Your task to perform on an android device: open app "HBO Max: Stream TV & Movies" (install if not already installed) Image 0: 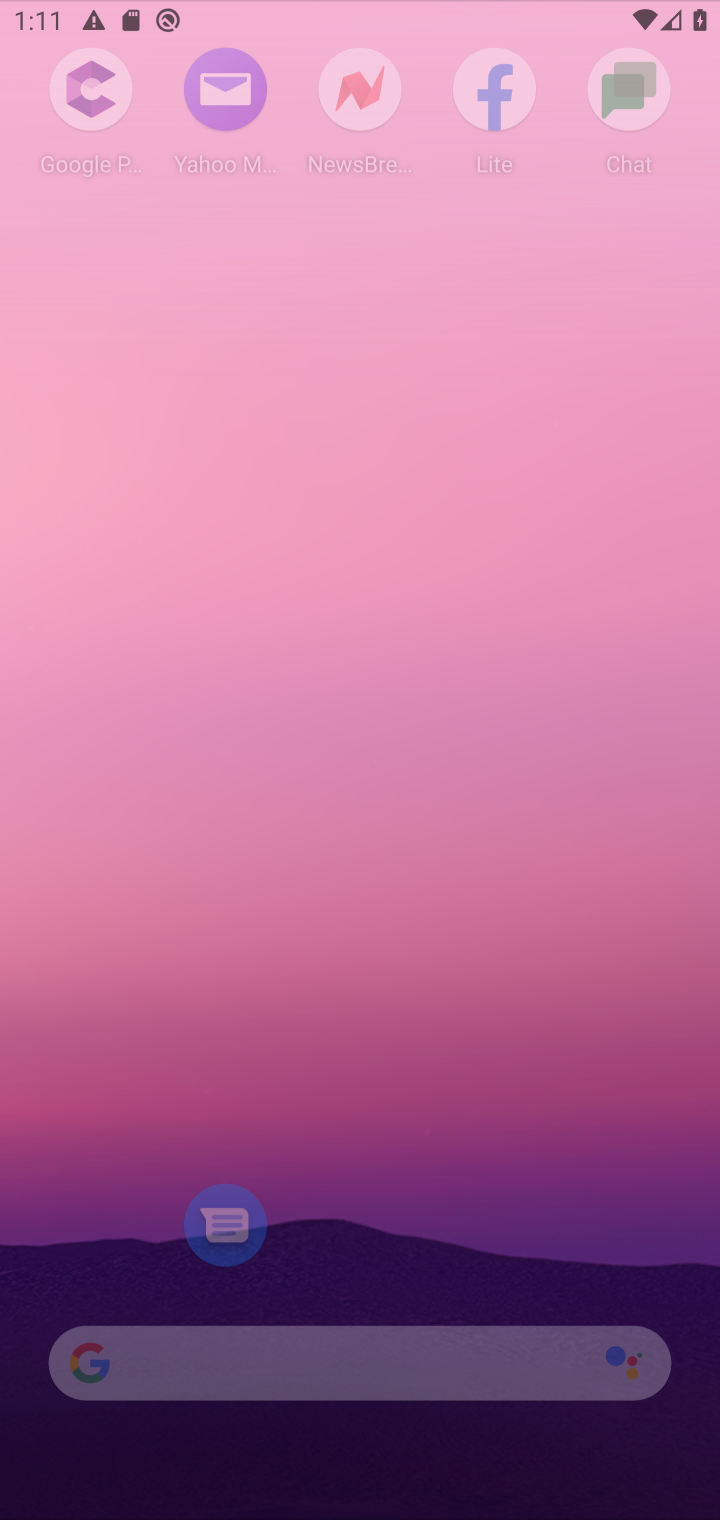
Step 0: press home button
Your task to perform on an android device: open app "HBO Max: Stream TV & Movies" (install if not already installed) Image 1: 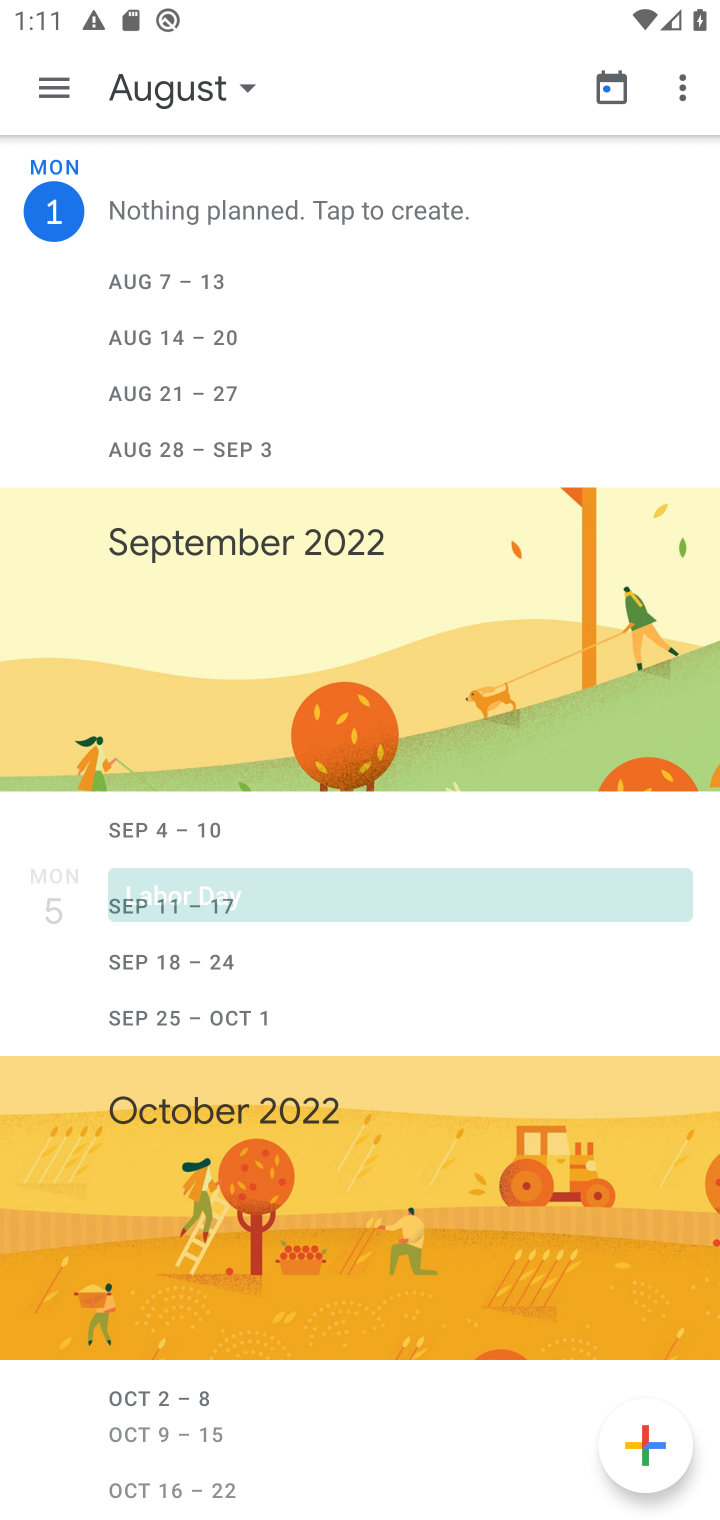
Step 1: press back button
Your task to perform on an android device: open app "HBO Max: Stream TV & Movies" (install if not already installed) Image 2: 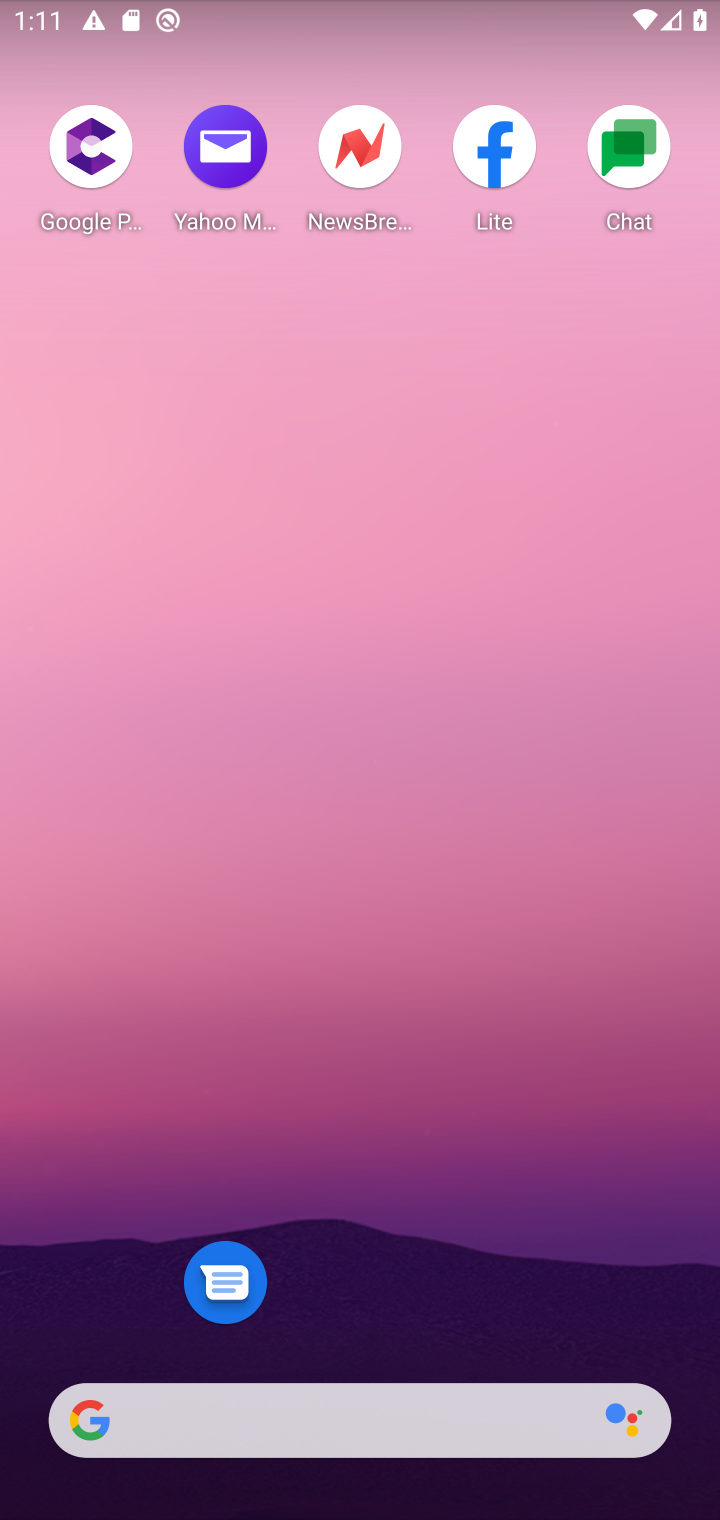
Step 2: drag from (403, 1300) to (708, 989)
Your task to perform on an android device: open app "HBO Max: Stream TV & Movies" (install if not already installed) Image 3: 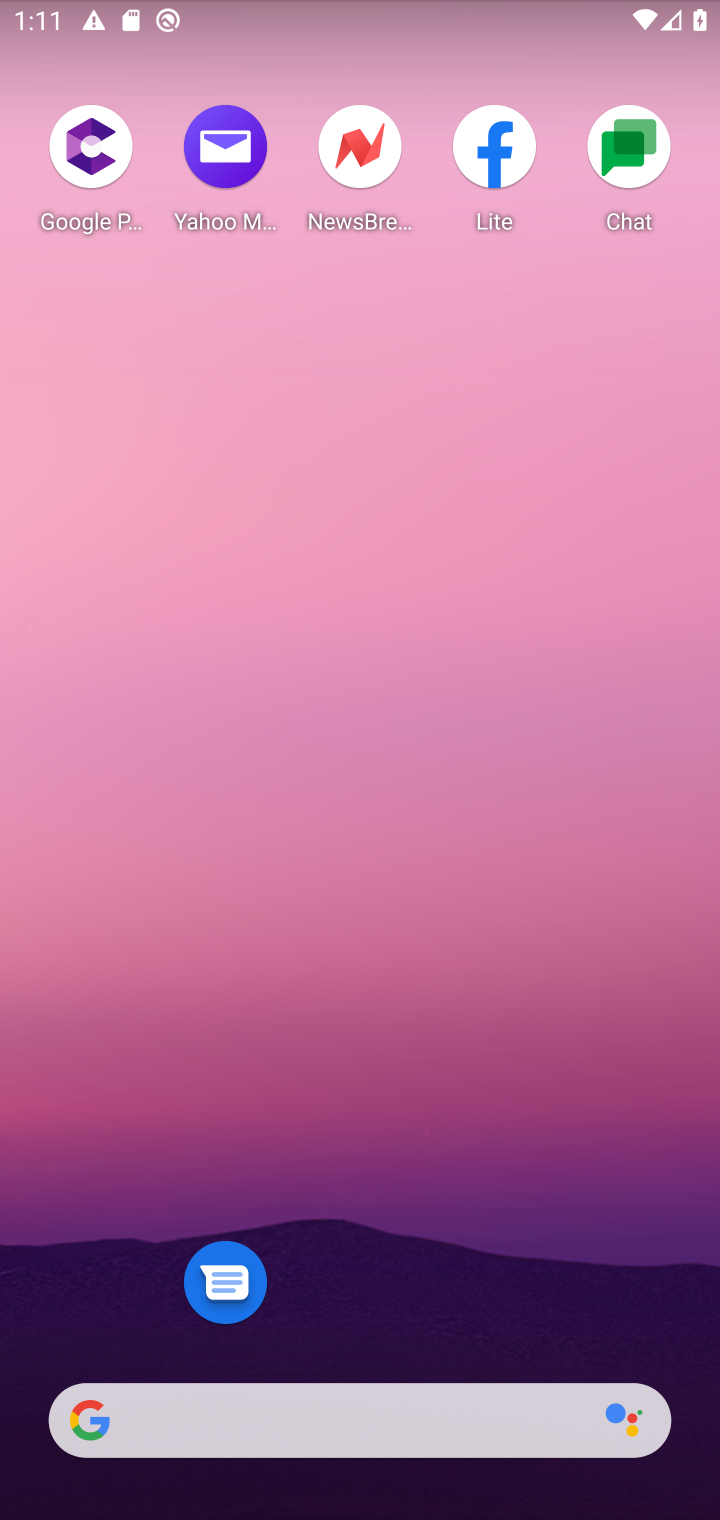
Step 3: drag from (372, 1337) to (673, 1241)
Your task to perform on an android device: open app "HBO Max: Stream TV & Movies" (install if not already installed) Image 4: 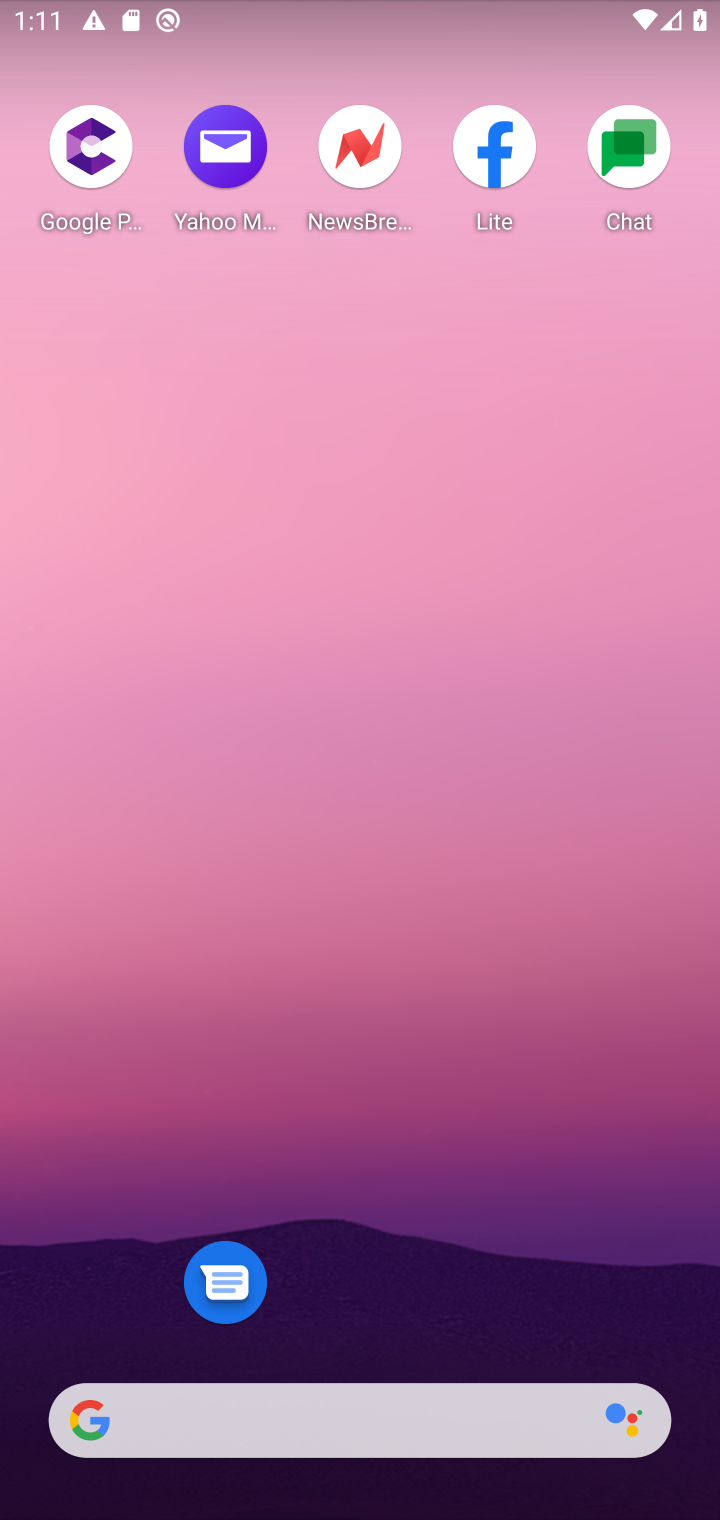
Step 4: drag from (429, 1382) to (429, 32)
Your task to perform on an android device: open app "HBO Max: Stream TV & Movies" (install if not already installed) Image 5: 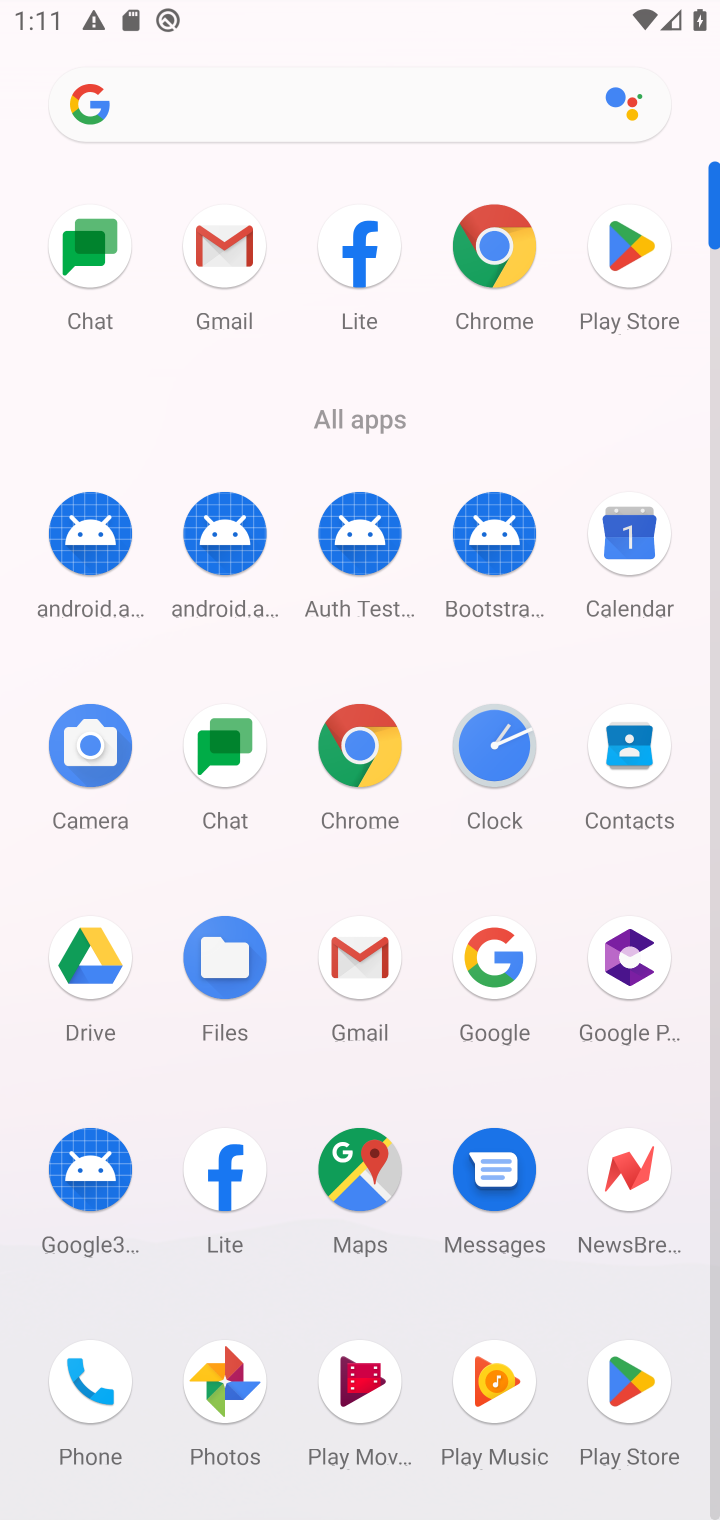
Step 5: click (616, 1418)
Your task to perform on an android device: open app "HBO Max: Stream TV & Movies" (install if not already installed) Image 6: 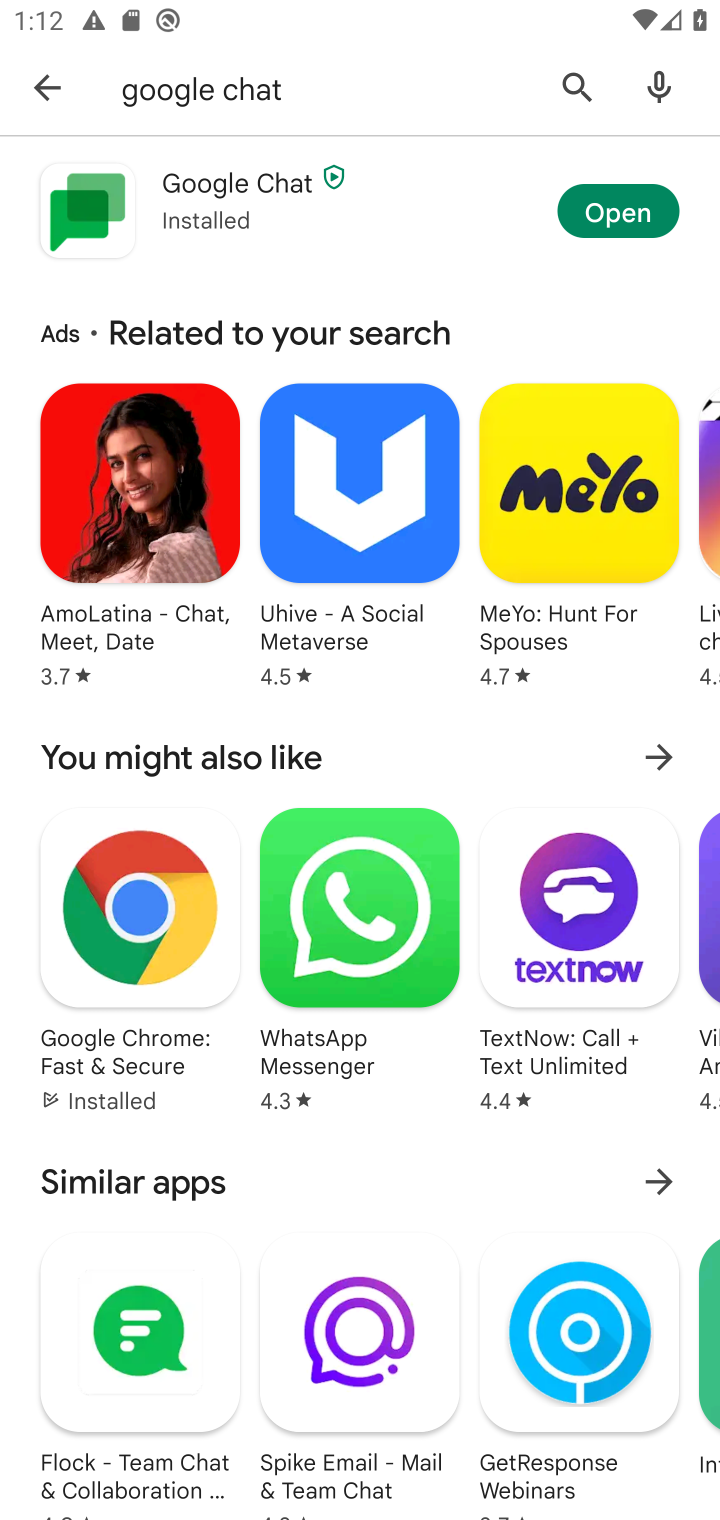
Step 6: click (54, 110)
Your task to perform on an android device: open app "HBO Max: Stream TV & Movies" (install if not already installed) Image 7: 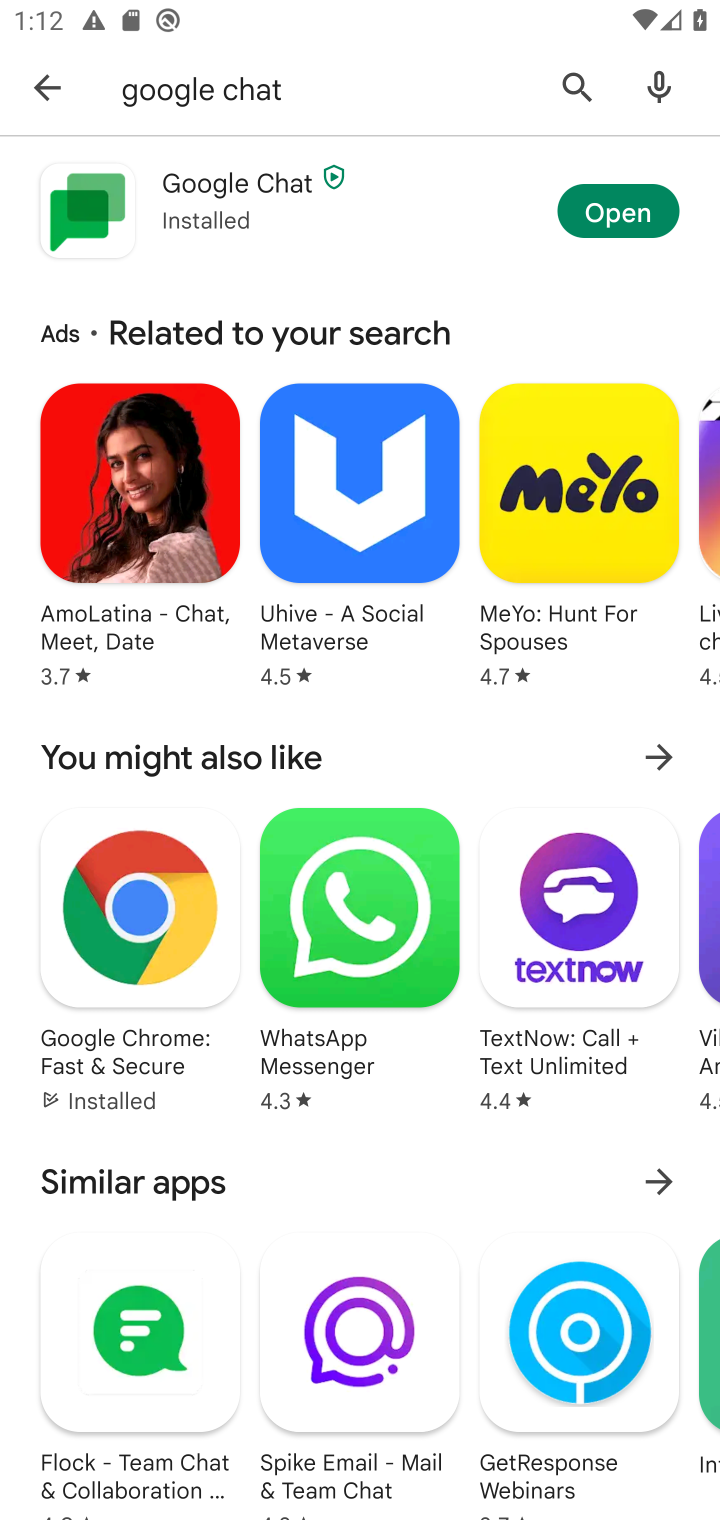
Step 7: click (40, 97)
Your task to perform on an android device: open app "HBO Max: Stream TV & Movies" (install if not already installed) Image 8: 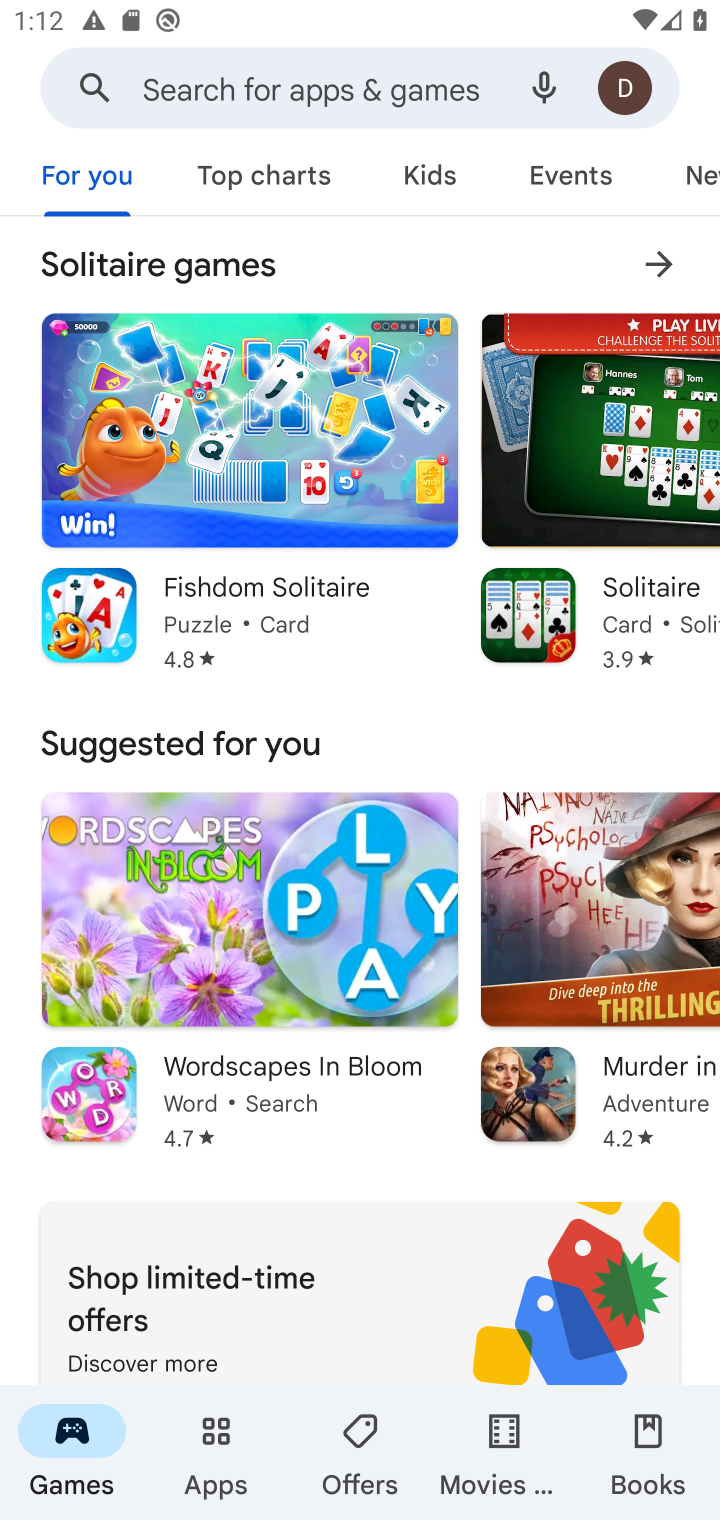
Step 8: click (227, 90)
Your task to perform on an android device: open app "HBO Max: Stream TV & Movies" (install if not already installed) Image 9: 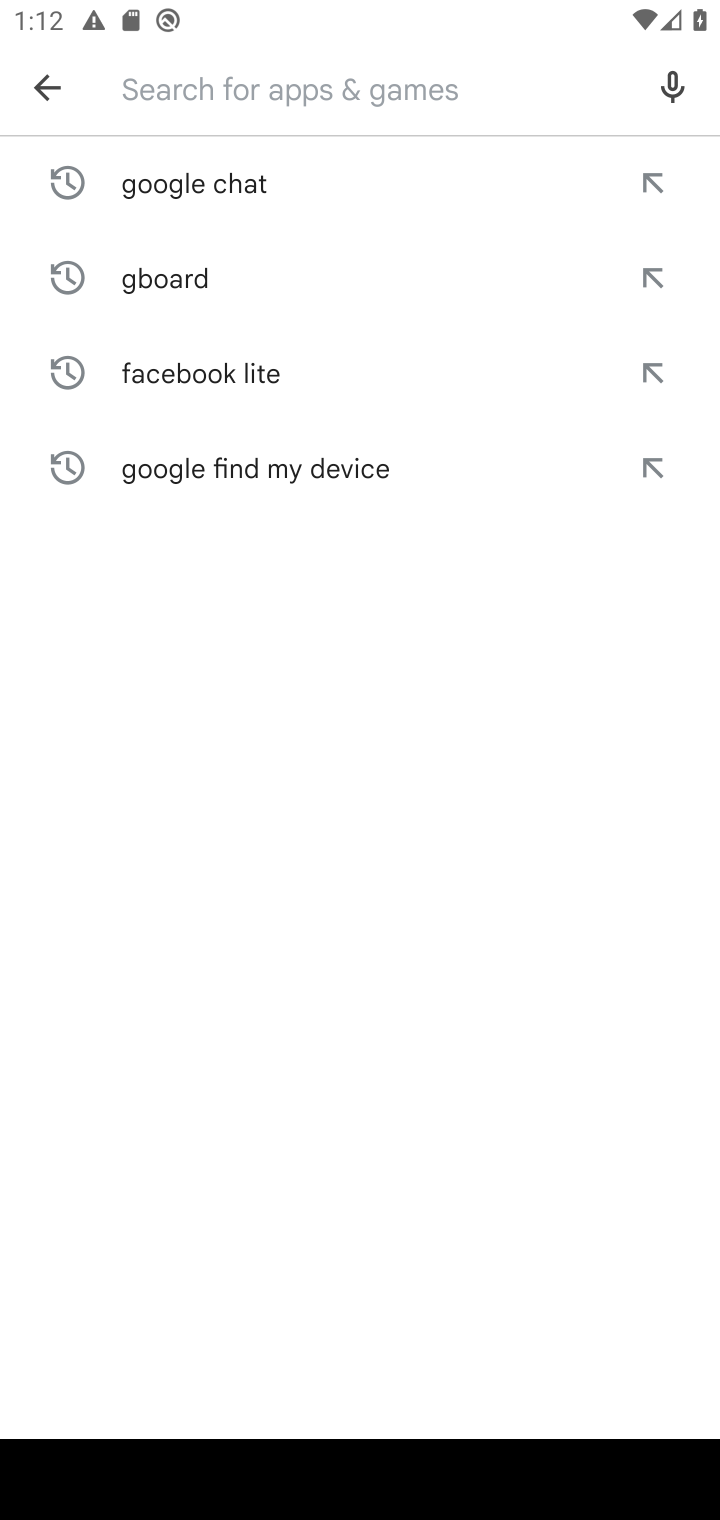
Step 9: type "HBO Max: Stream TV & Movies"
Your task to perform on an android device: open app "HBO Max: Stream TV & Movies" (install if not already installed) Image 10: 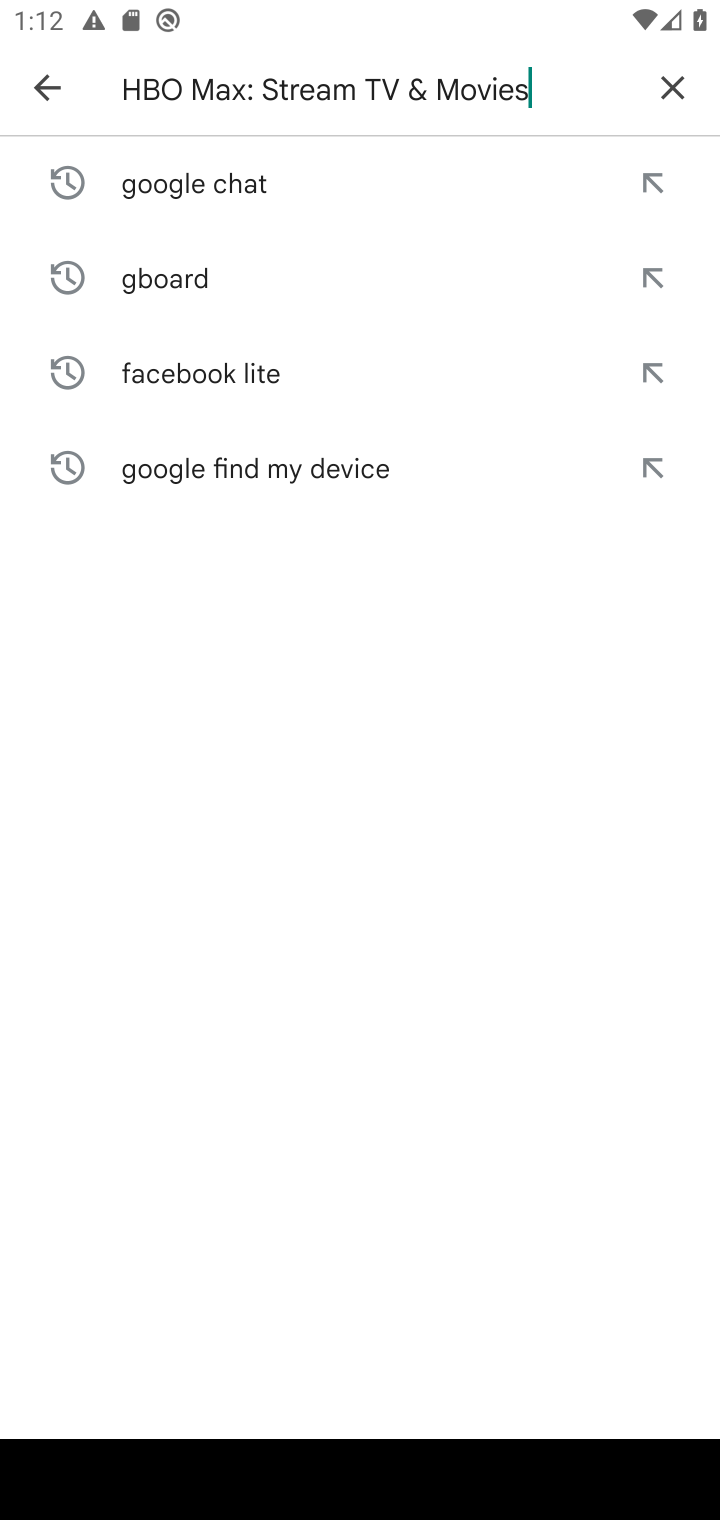
Step 10: type ""
Your task to perform on an android device: open app "HBO Max: Stream TV & Movies" (install if not already installed) Image 11: 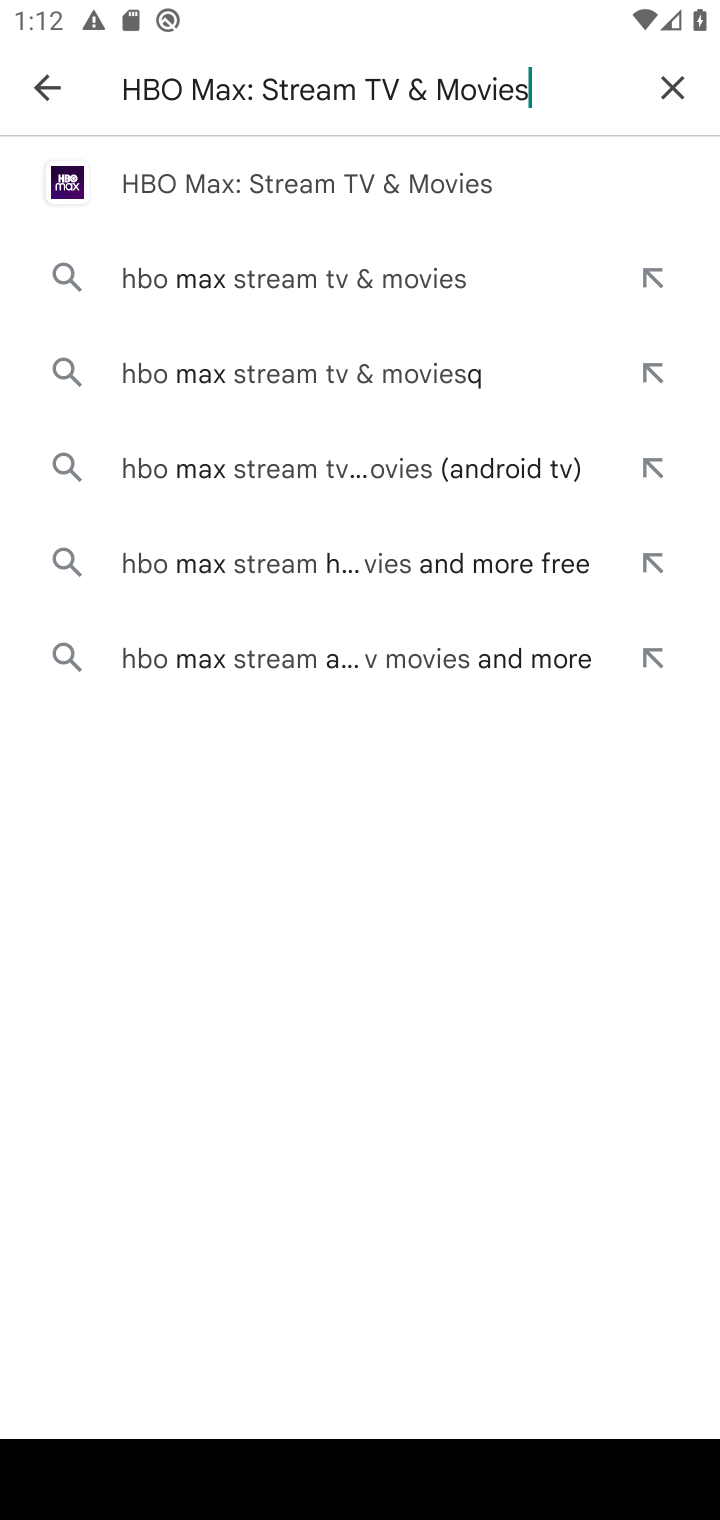
Step 11: click (219, 178)
Your task to perform on an android device: open app "HBO Max: Stream TV & Movies" (install if not already installed) Image 12: 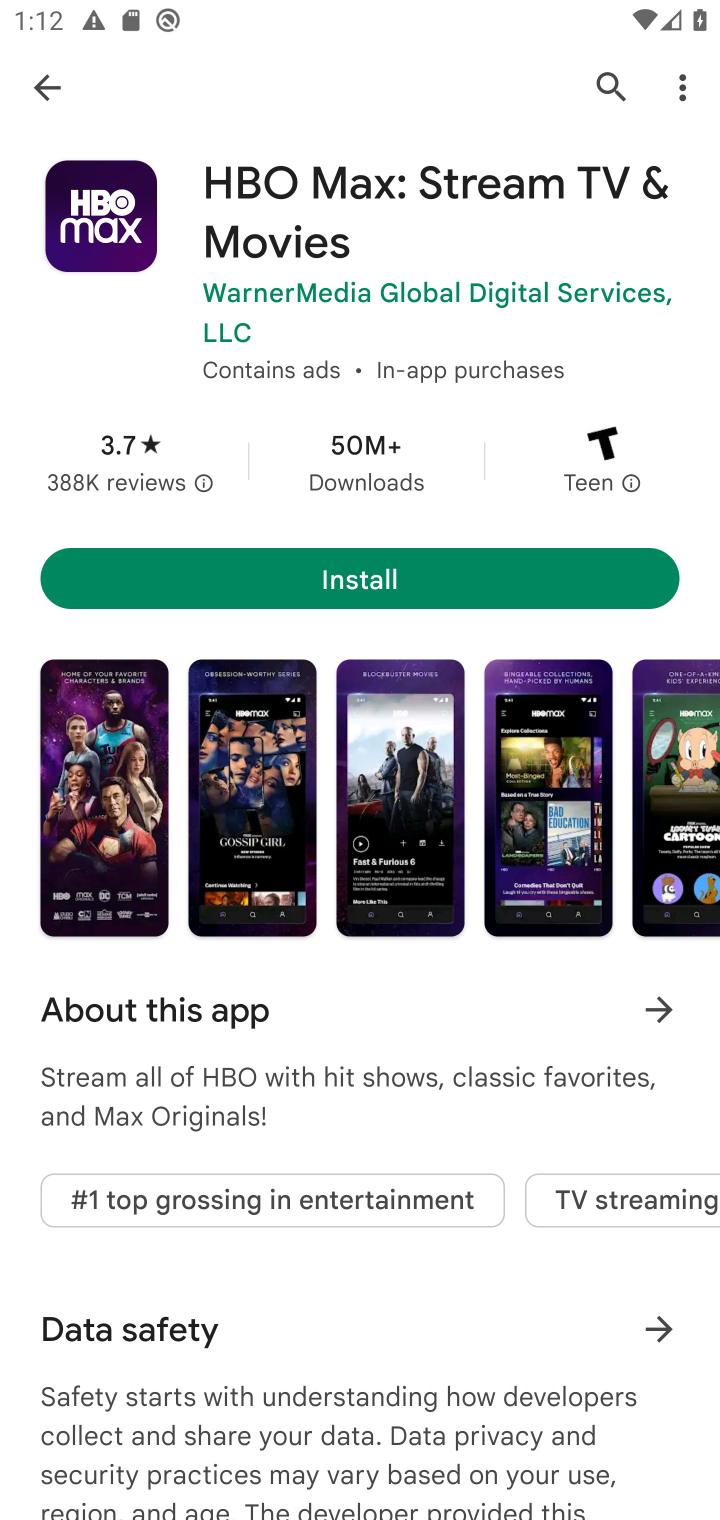
Step 12: click (290, 561)
Your task to perform on an android device: open app "HBO Max: Stream TV & Movies" (install if not already installed) Image 13: 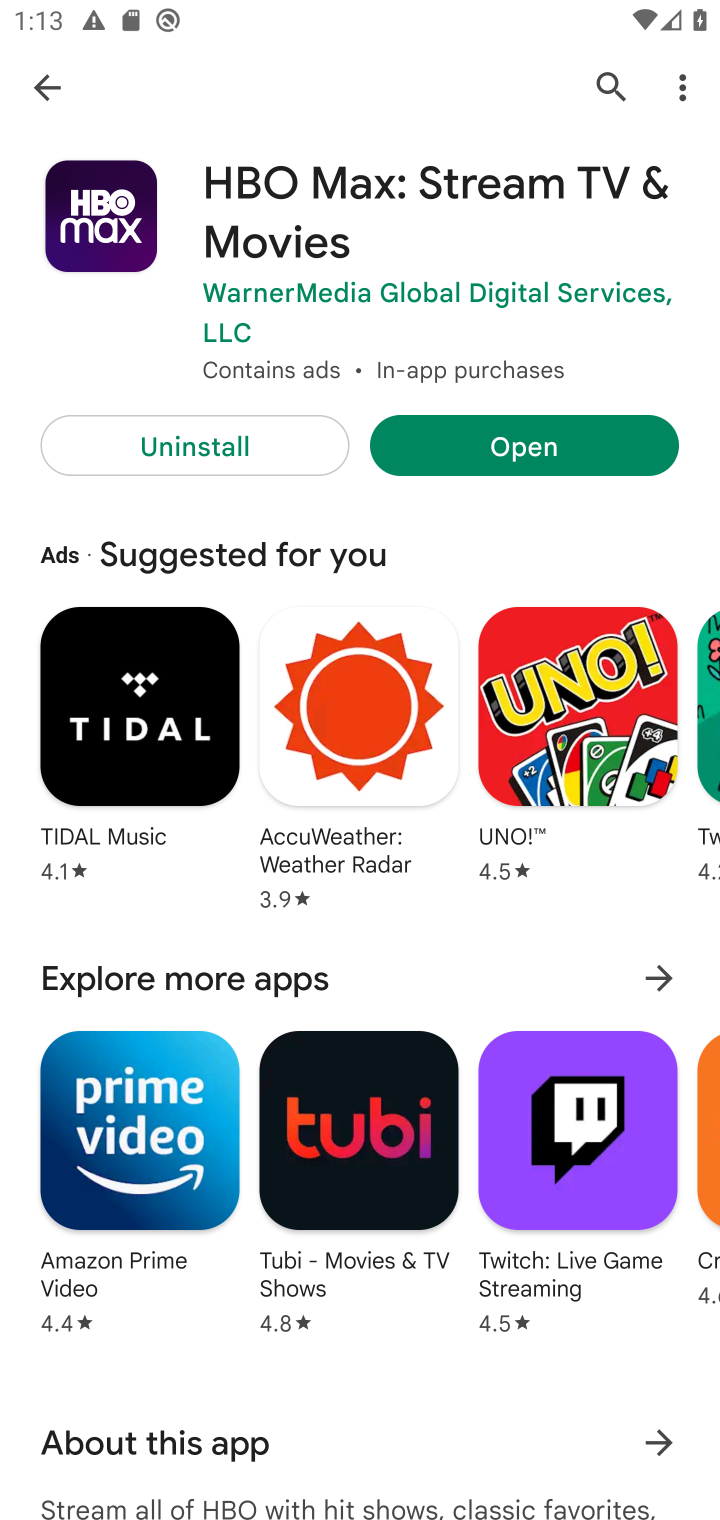
Step 13: task complete